Your task to perform on an android device: Show the shopping cart on ebay. Add "razer blade" to the cart on ebay Image 0: 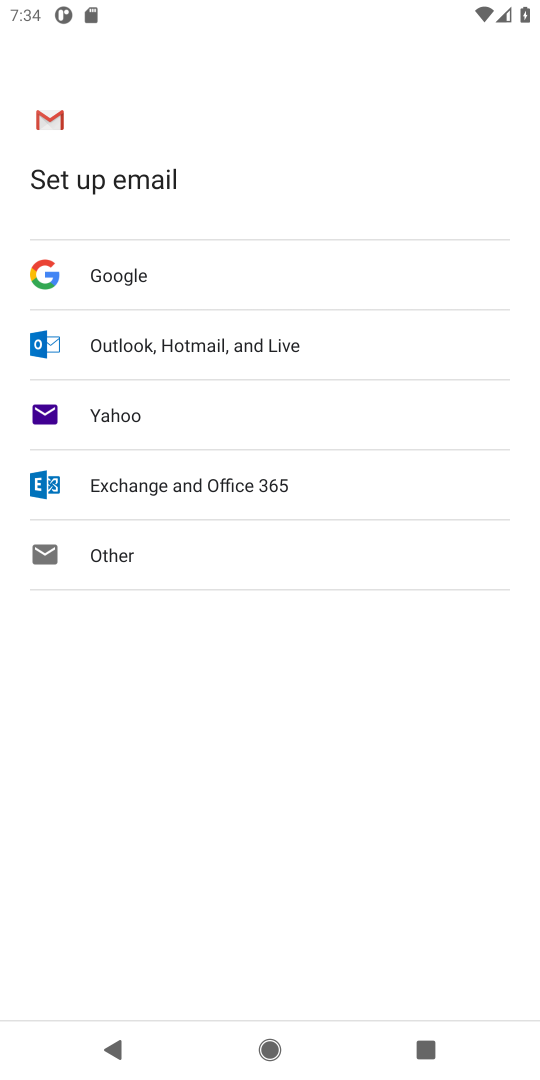
Step 0: press home button
Your task to perform on an android device: Show the shopping cart on ebay. Add "razer blade" to the cart on ebay Image 1: 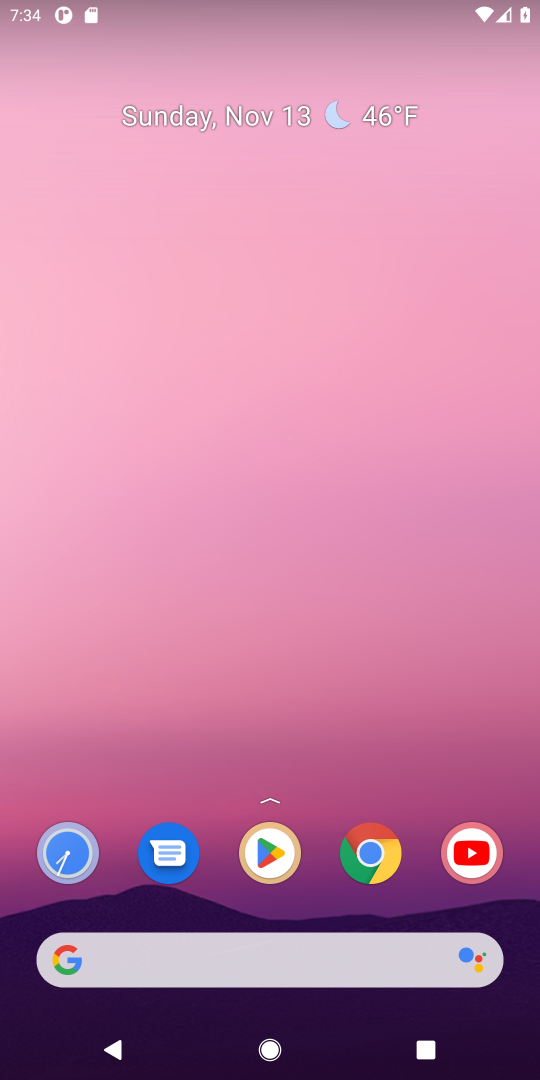
Step 1: click (126, 945)
Your task to perform on an android device: Show the shopping cart on ebay. Add "razer blade" to the cart on ebay Image 2: 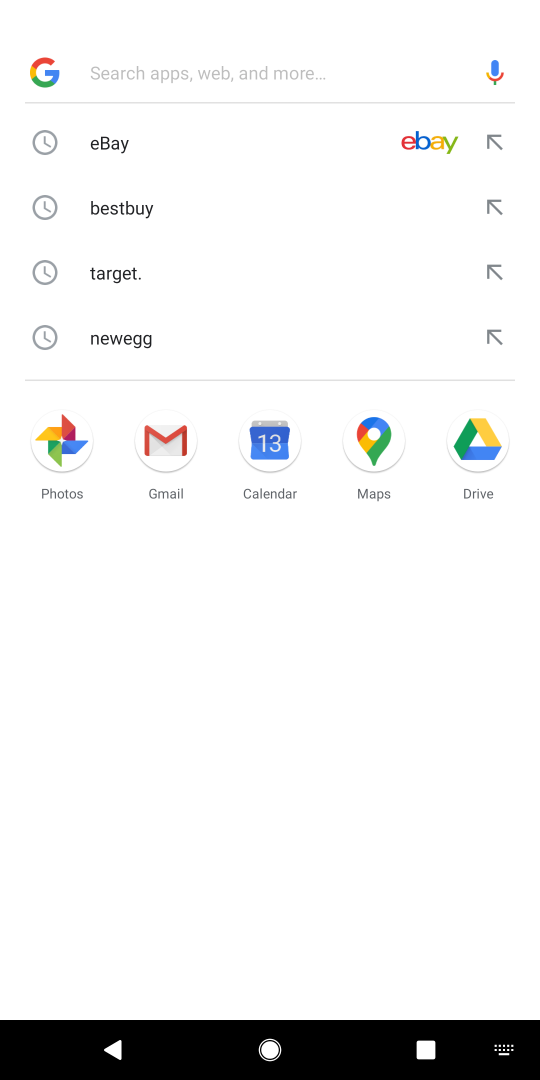
Step 2: click (131, 145)
Your task to perform on an android device: Show the shopping cart on ebay. Add "razer blade" to the cart on ebay Image 3: 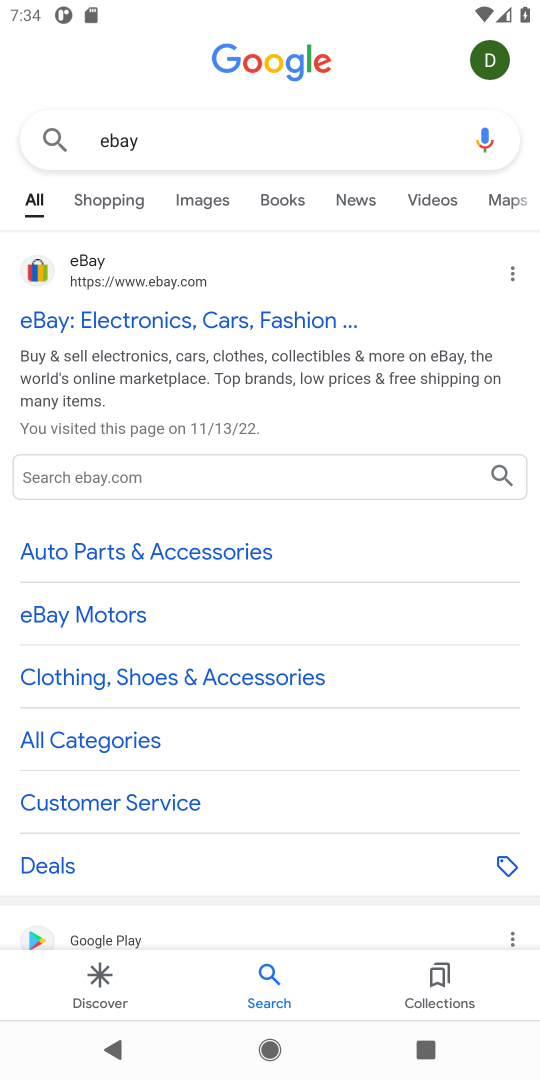
Step 3: click (96, 313)
Your task to perform on an android device: Show the shopping cart on ebay. Add "razer blade" to the cart on ebay Image 4: 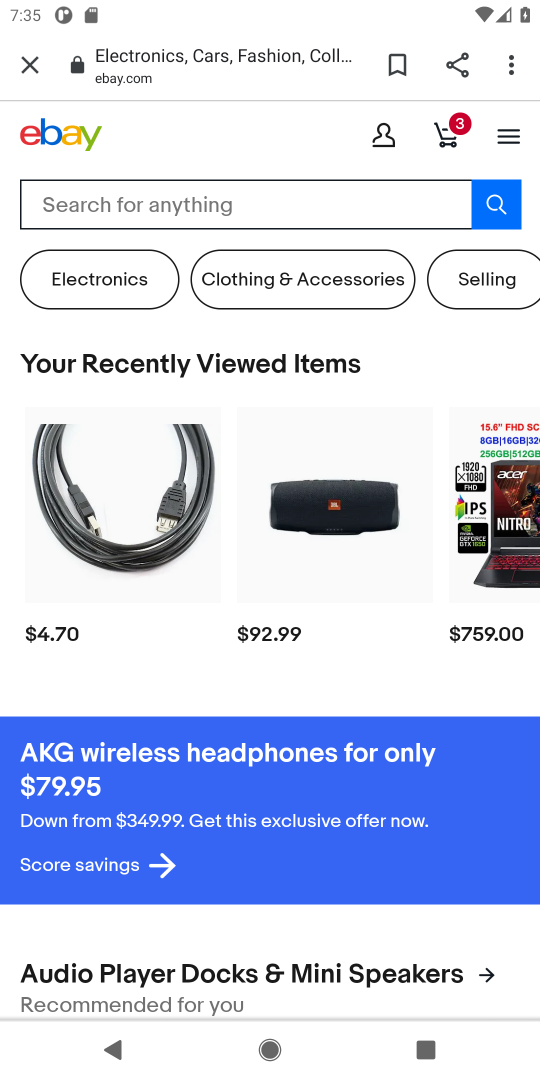
Step 4: click (446, 127)
Your task to perform on an android device: Show the shopping cart on ebay. Add "razer blade" to the cart on ebay Image 5: 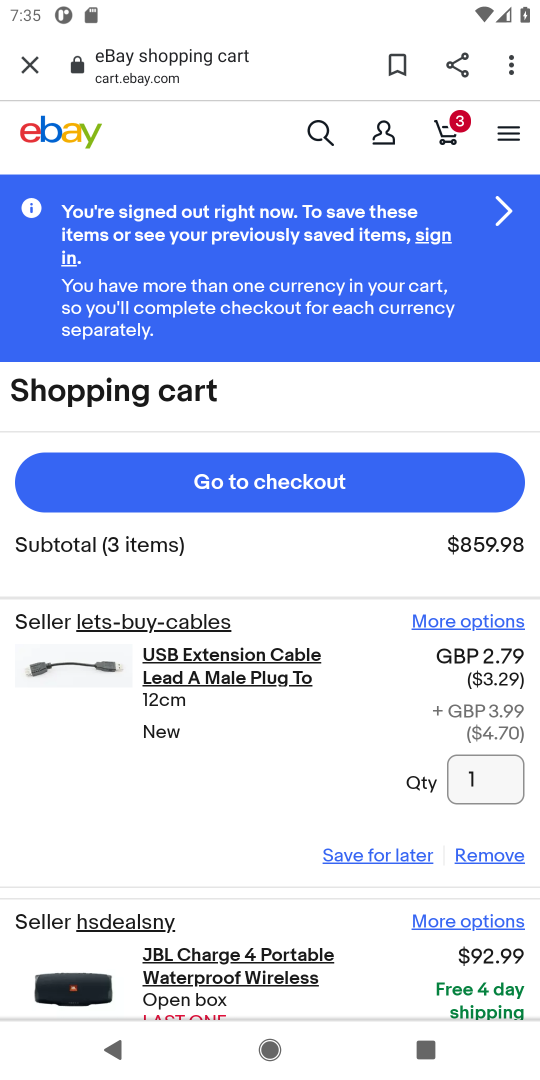
Step 5: click (316, 130)
Your task to perform on an android device: Show the shopping cart on ebay. Add "razer blade" to the cart on ebay Image 6: 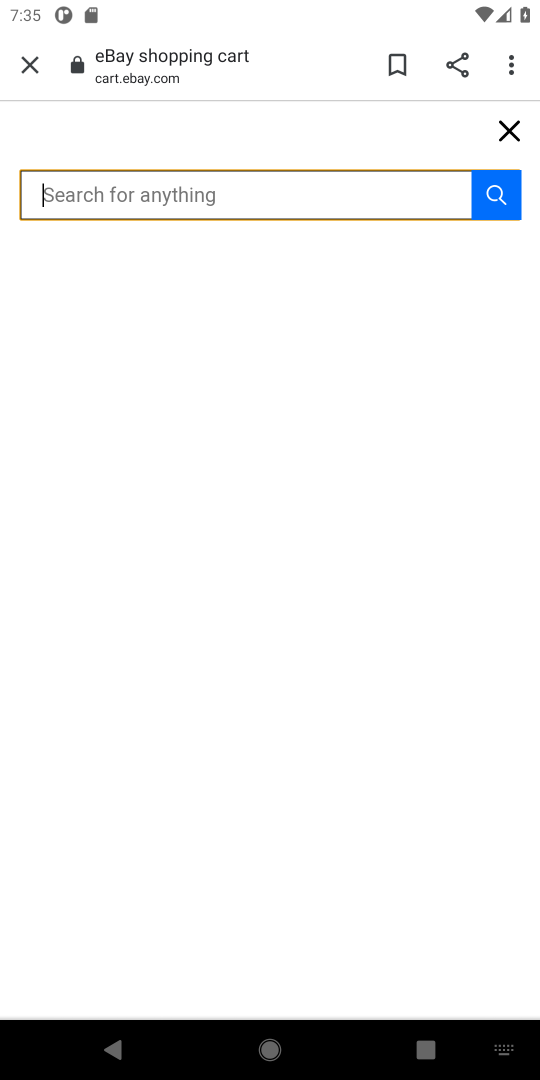
Step 6: type "razer blade"
Your task to perform on an android device: Show the shopping cart on ebay. Add "razer blade" to the cart on ebay Image 7: 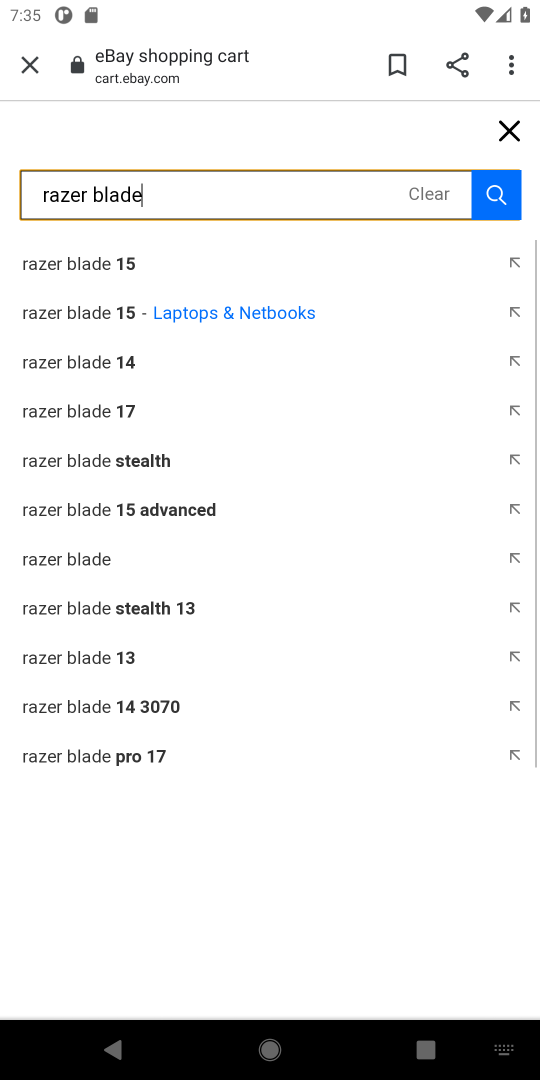
Step 7: press enter
Your task to perform on an android device: Show the shopping cart on ebay. Add "razer blade" to the cart on ebay Image 8: 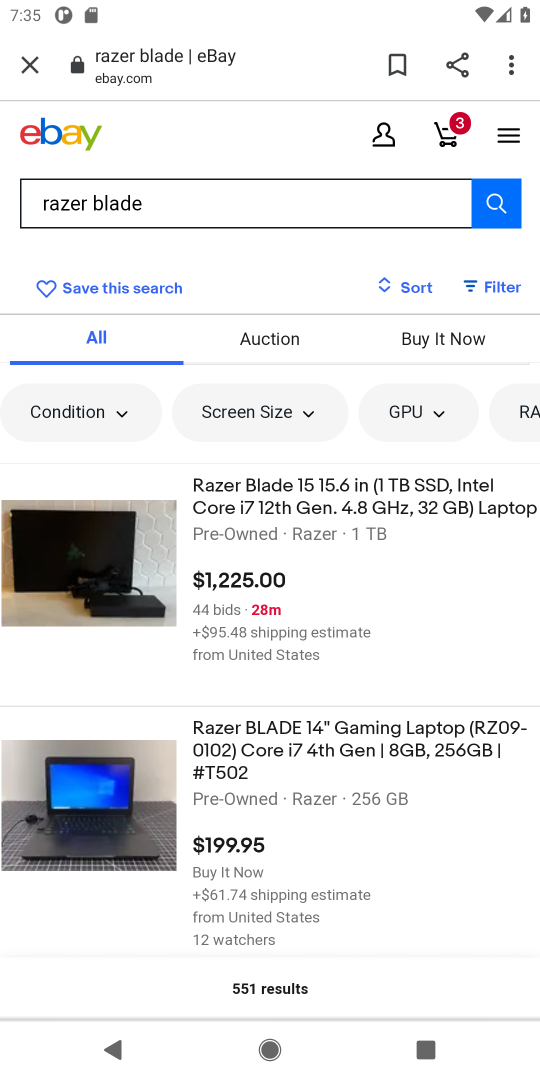
Step 8: click (267, 501)
Your task to perform on an android device: Show the shopping cart on ebay. Add "razer blade" to the cart on ebay Image 9: 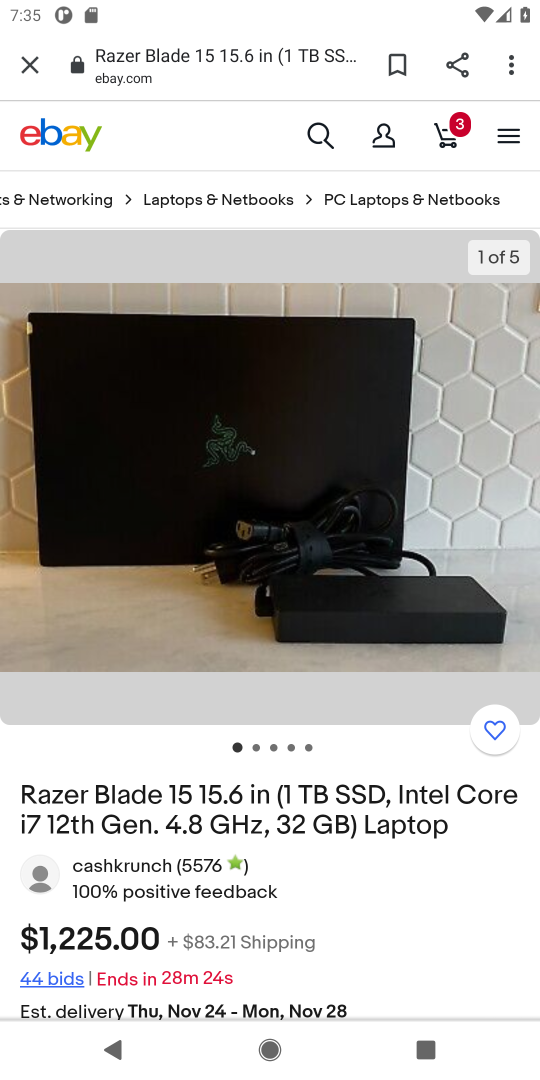
Step 9: drag from (376, 894) to (383, 502)
Your task to perform on an android device: Show the shopping cart on ebay. Add "razer blade" to the cart on ebay Image 10: 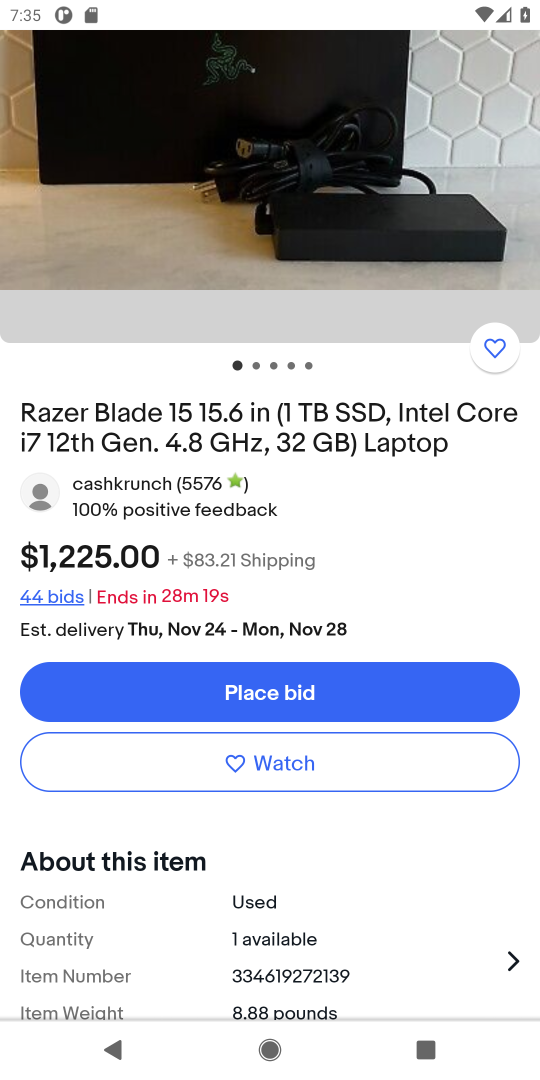
Step 10: click (292, 688)
Your task to perform on an android device: Show the shopping cart on ebay. Add "razer blade" to the cart on ebay Image 11: 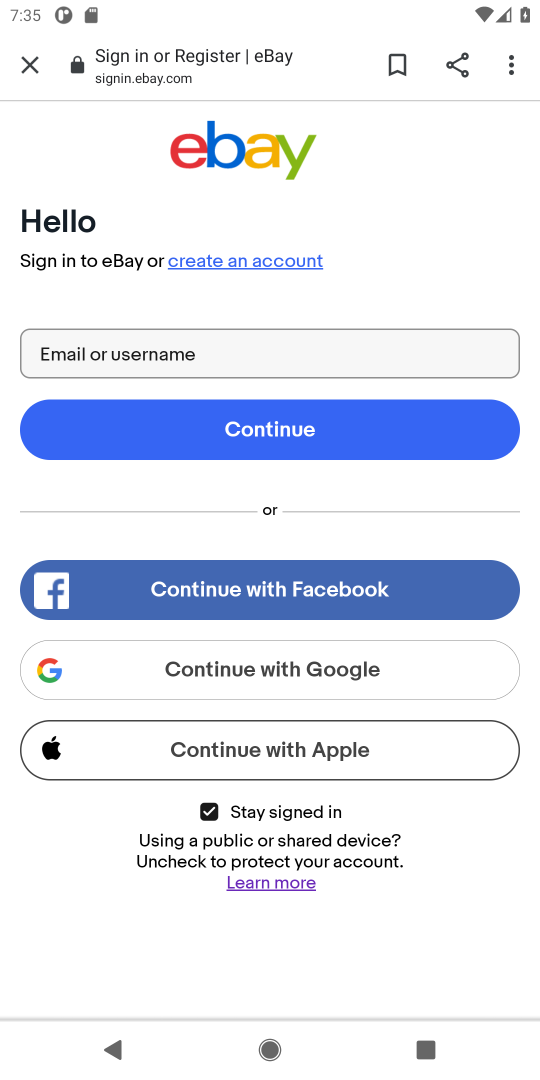
Step 11: task complete